Your task to perform on an android device: Open privacy settings Image 0: 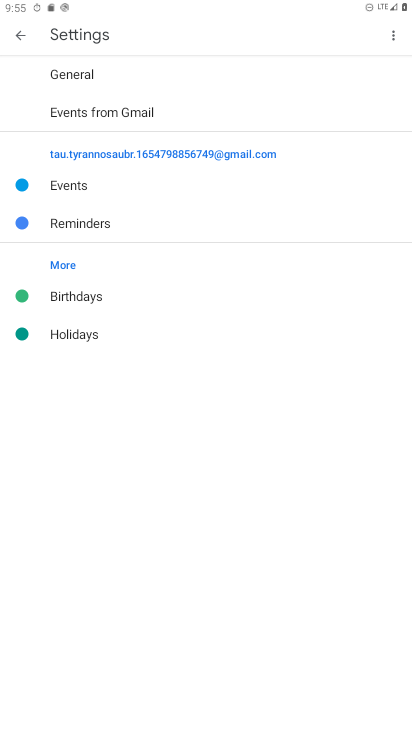
Step 0: press home button
Your task to perform on an android device: Open privacy settings Image 1: 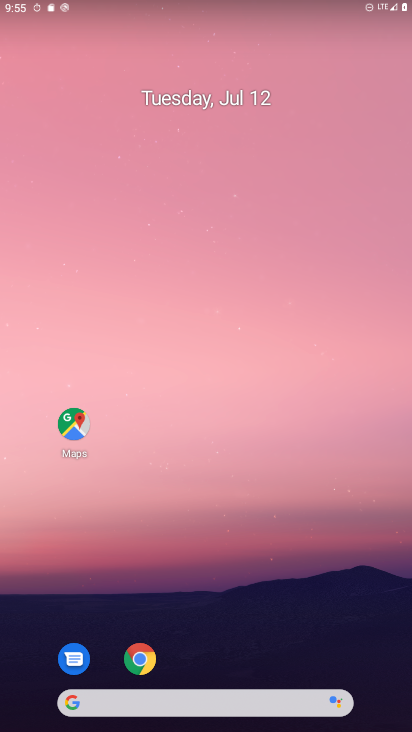
Step 1: drag from (364, 682) to (199, 33)
Your task to perform on an android device: Open privacy settings Image 2: 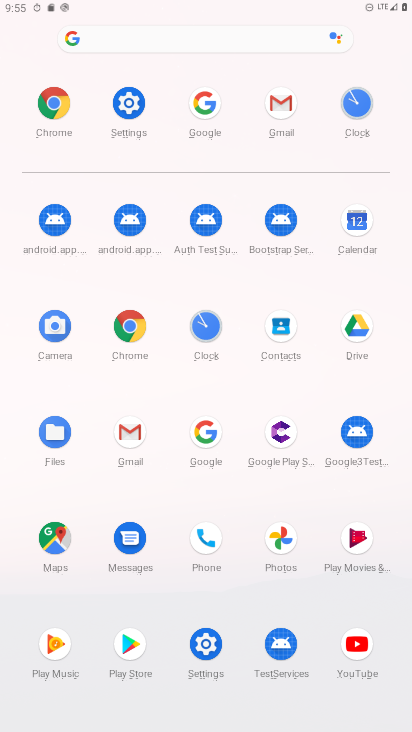
Step 2: click (205, 633)
Your task to perform on an android device: Open privacy settings Image 3: 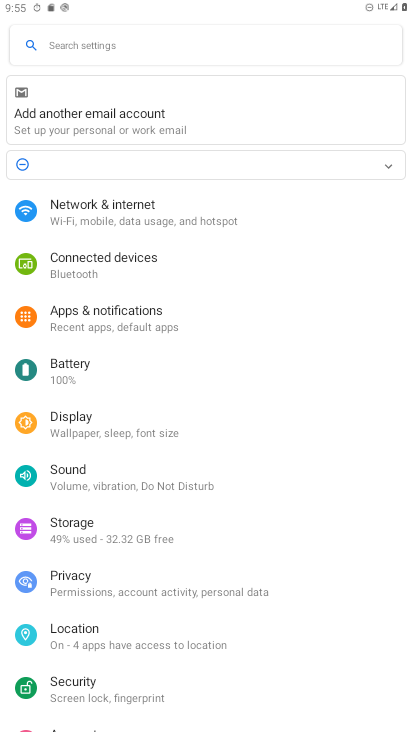
Step 3: click (112, 592)
Your task to perform on an android device: Open privacy settings Image 4: 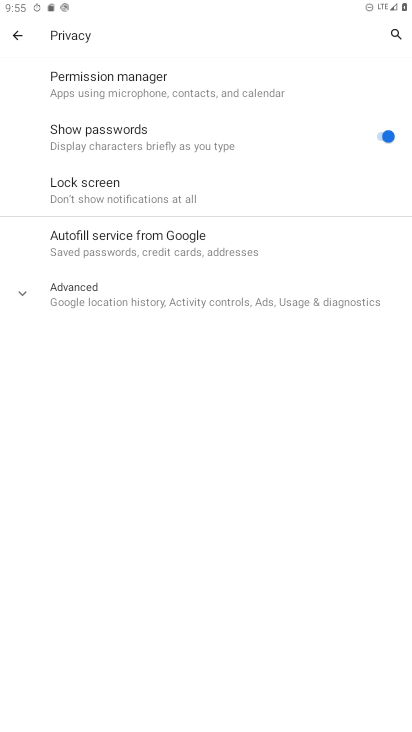
Step 4: task complete